Your task to perform on an android device: open a bookmark in the chrome app Image 0: 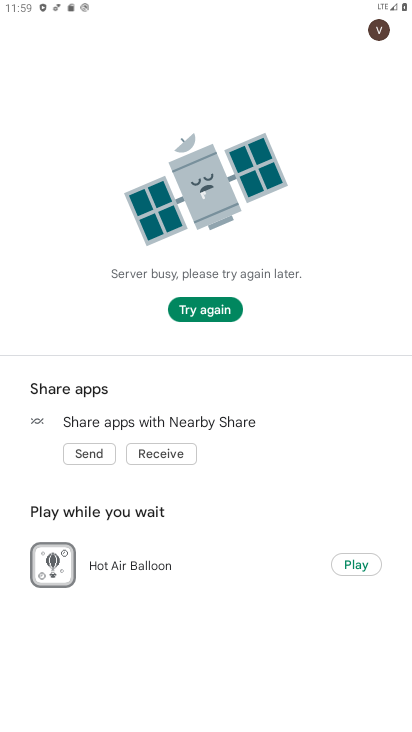
Step 0: press home button
Your task to perform on an android device: open a bookmark in the chrome app Image 1: 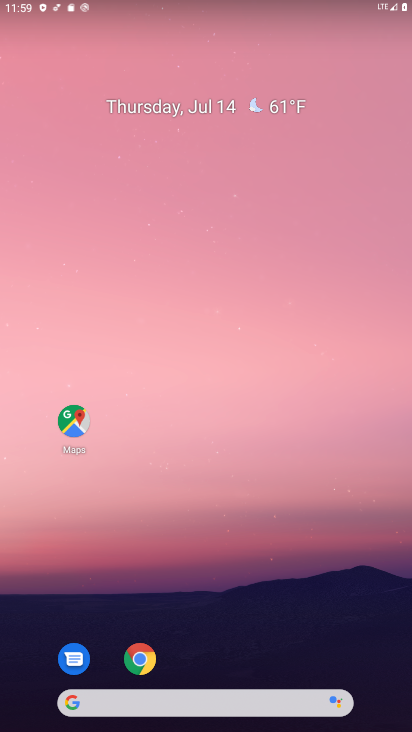
Step 1: click (140, 659)
Your task to perform on an android device: open a bookmark in the chrome app Image 2: 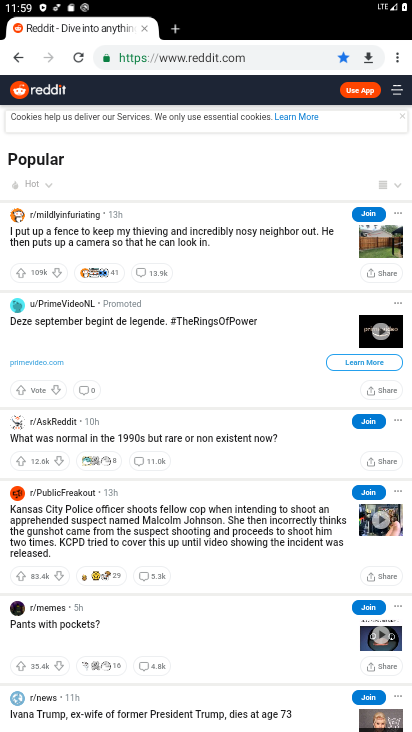
Step 2: click (396, 58)
Your task to perform on an android device: open a bookmark in the chrome app Image 3: 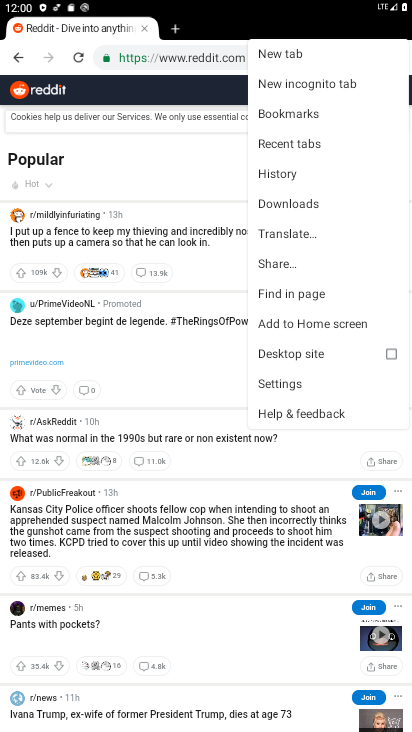
Step 3: click (305, 113)
Your task to perform on an android device: open a bookmark in the chrome app Image 4: 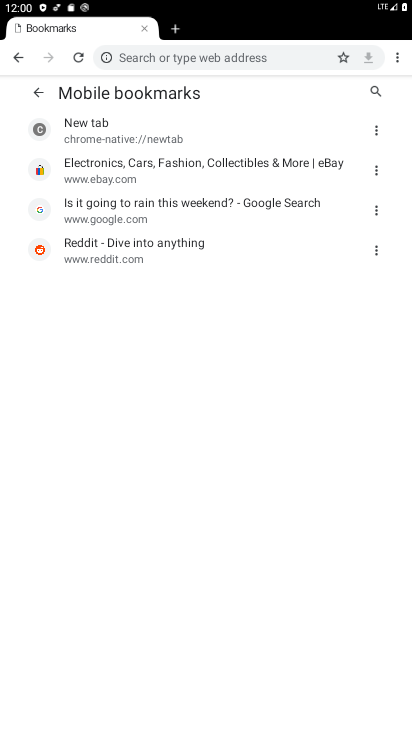
Step 4: task complete